Your task to perform on an android device: turn off airplane mode Image 0: 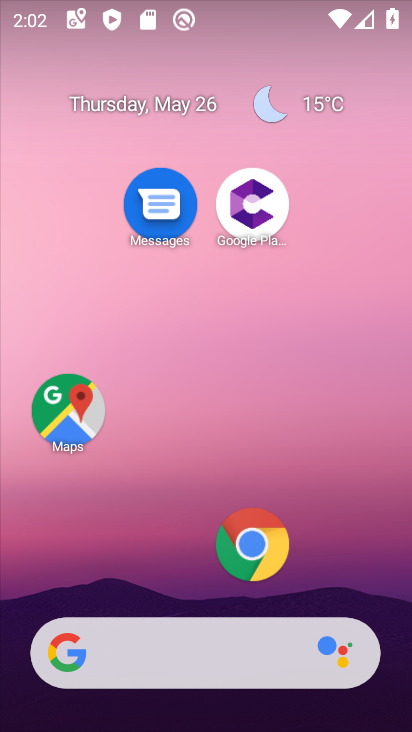
Step 0: drag from (234, 17) to (184, 514)
Your task to perform on an android device: turn off airplane mode Image 1: 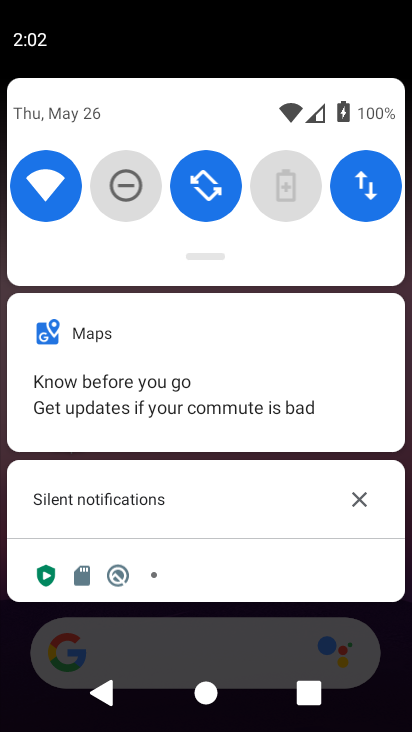
Step 1: task complete